Your task to perform on an android device: turn on priority inbox in the gmail app Image 0: 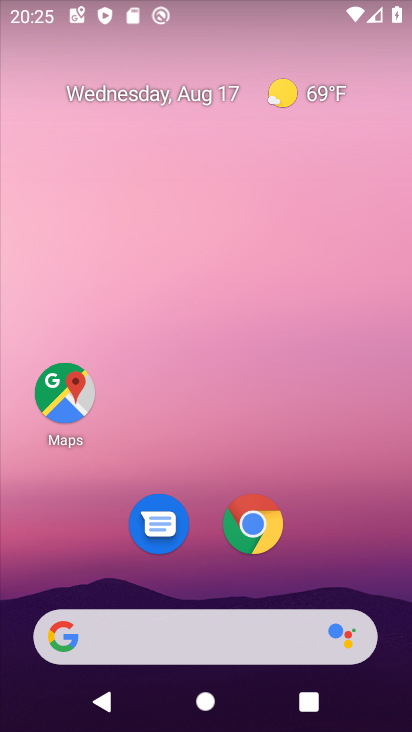
Step 0: drag from (348, 493) to (365, 45)
Your task to perform on an android device: turn on priority inbox in the gmail app Image 1: 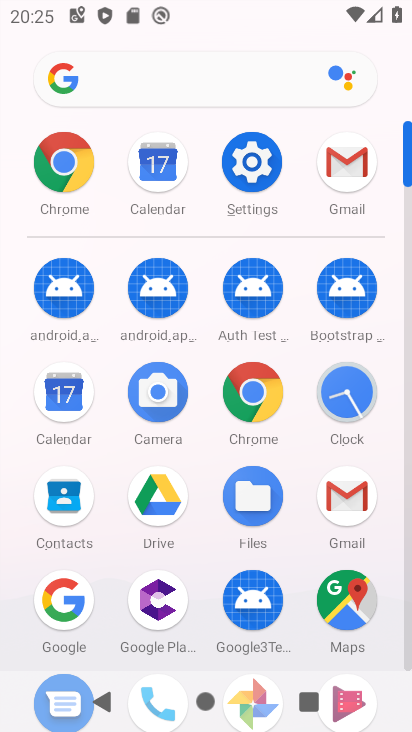
Step 1: click (348, 160)
Your task to perform on an android device: turn on priority inbox in the gmail app Image 2: 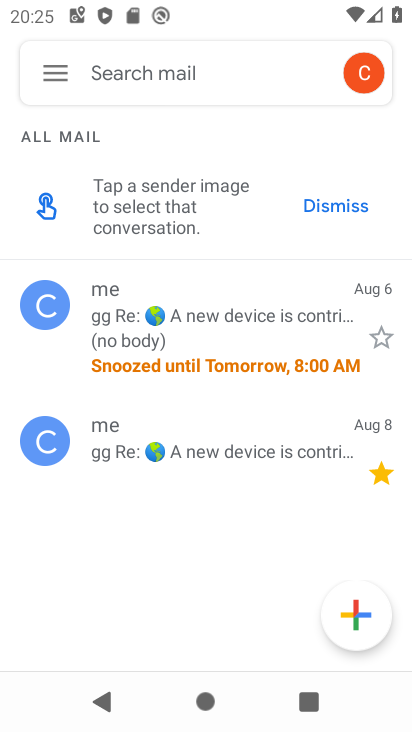
Step 2: click (58, 66)
Your task to perform on an android device: turn on priority inbox in the gmail app Image 3: 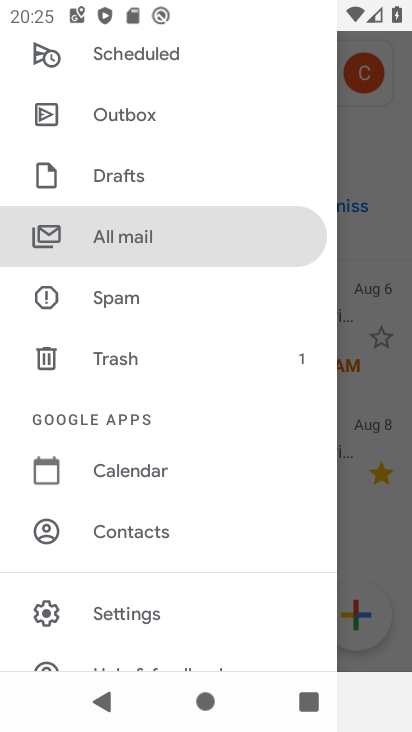
Step 3: click (134, 611)
Your task to perform on an android device: turn on priority inbox in the gmail app Image 4: 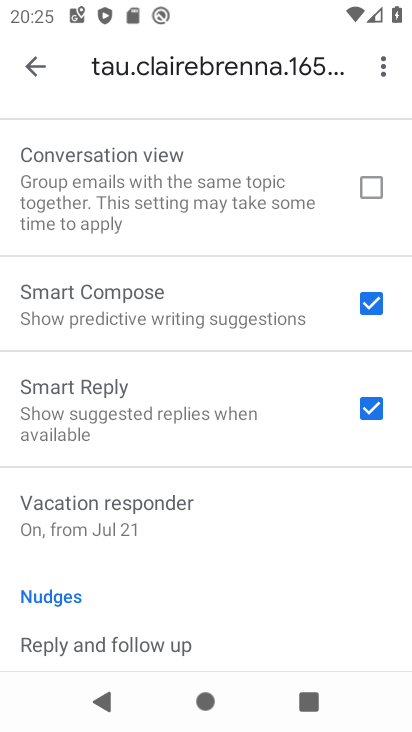
Step 4: drag from (232, 206) to (283, 628)
Your task to perform on an android device: turn on priority inbox in the gmail app Image 5: 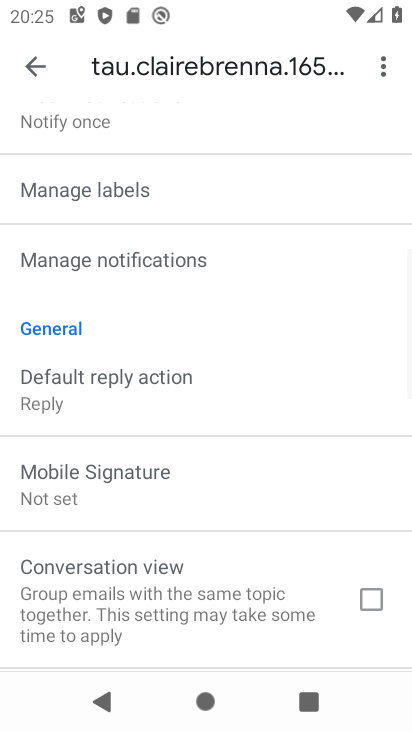
Step 5: drag from (267, 221) to (253, 621)
Your task to perform on an android device: turn on priority inbox in the gmail app Image 6: 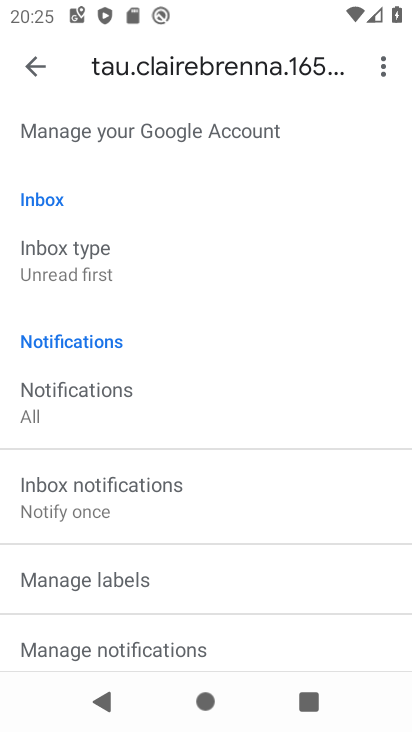
Step 6: click (84, 259)
Your task to perform on an android device: turn on priority inbox in the gmail app Image 7: 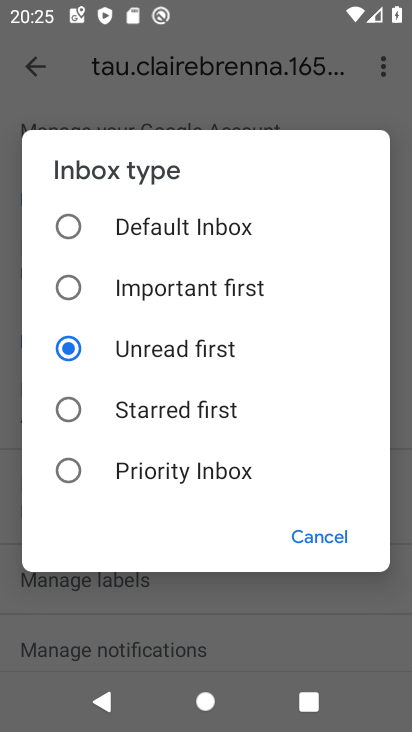
Step 7: click (70, 457)
Your task to perform on an android device: turn on priority inbox in the gmail app Image 8: 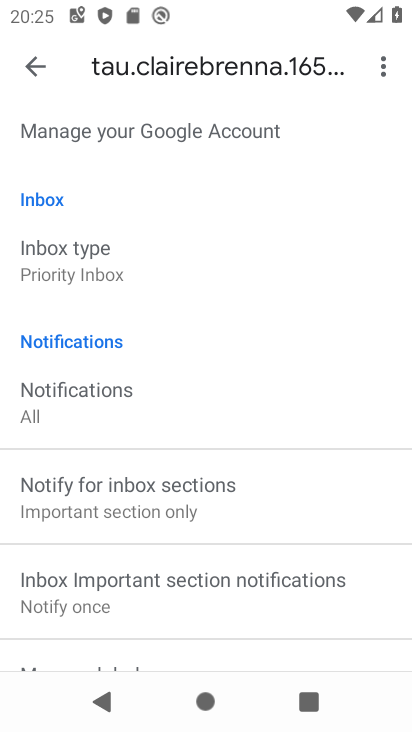
Step 8: task complete